Your task to perform on an android device: Open wifi settings Image 0: 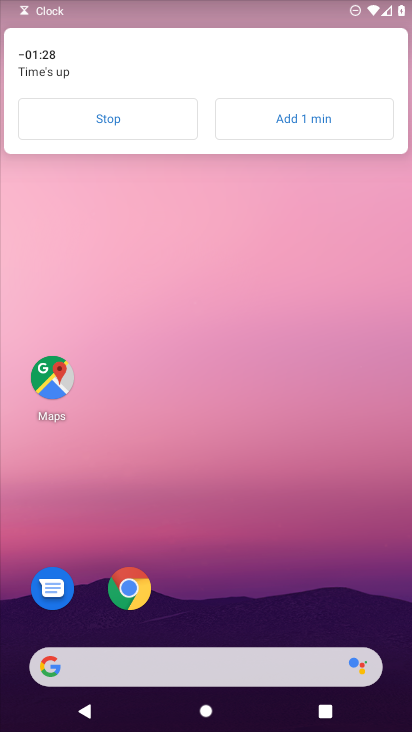
Step 0: drag from (258, 430) to (290, 215)
Your task to perform on an android device: Open wifi settings Image 1: 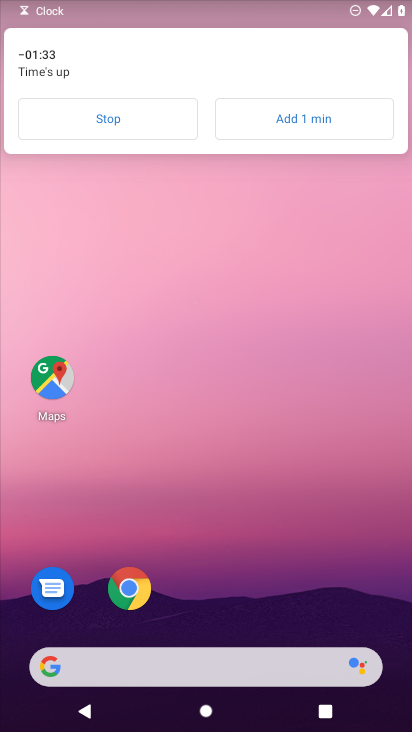
Step 1: drag from (226, 654) to (298, 1)
Your task to perform on an android device: Open wifi settings Image 2: 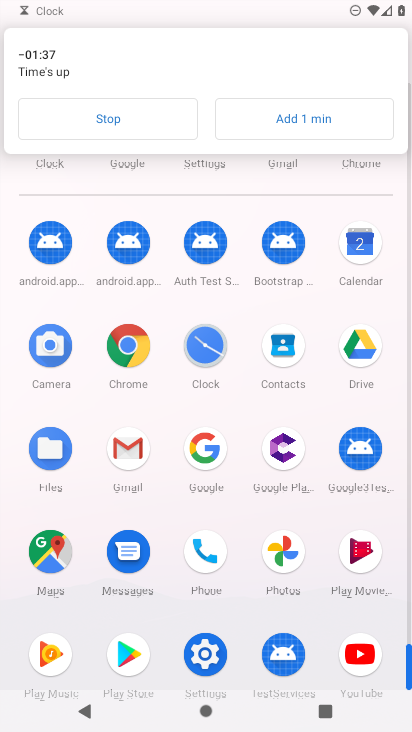
Step 2: click (193, 666)
Your task to perform on an android device: Open wifi settings Image 3: 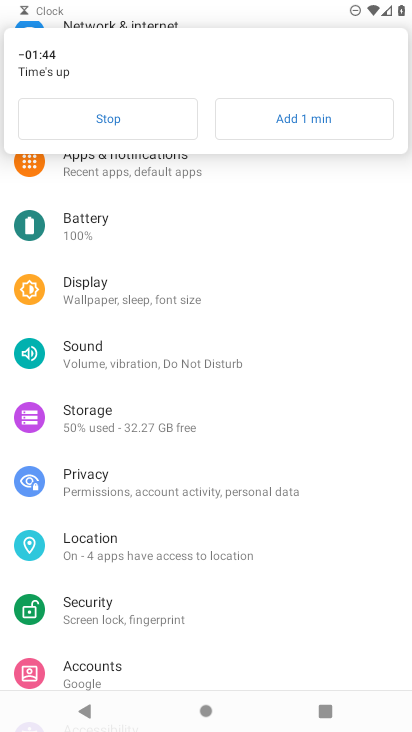
Step 3: drag from (179, 275) to (157, 625)
Your task to perform on an android device: Open wifi settings Image 4: 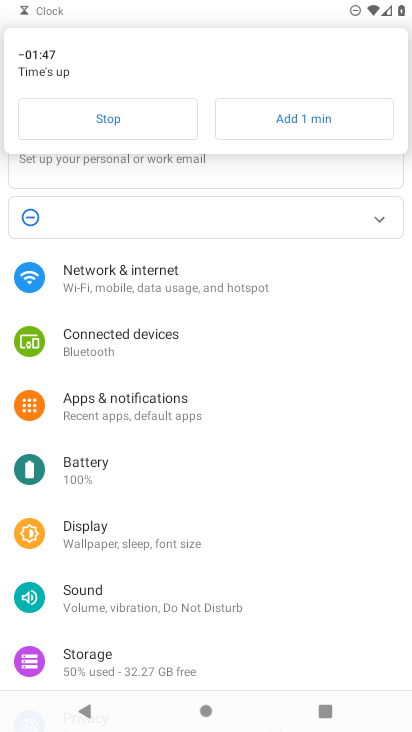
Step 4: click (188, 277)
Your task to perform on an android device: Open wifi settings Image 5: 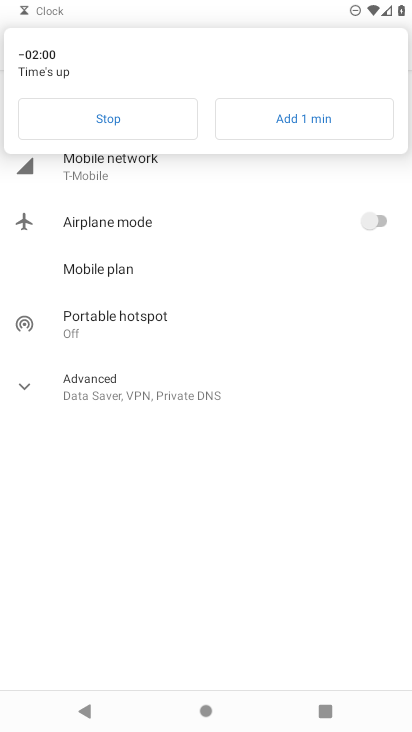
Step 5: click (131, 126)
Your task to perform on an android device: Open wifi settings Image 6: 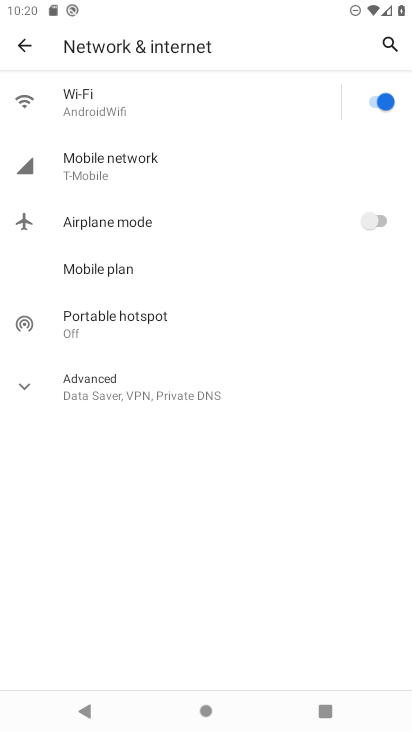
Step 6: click (178, 94)
Your task to perform on an android device: Open wifi settings Image 7: 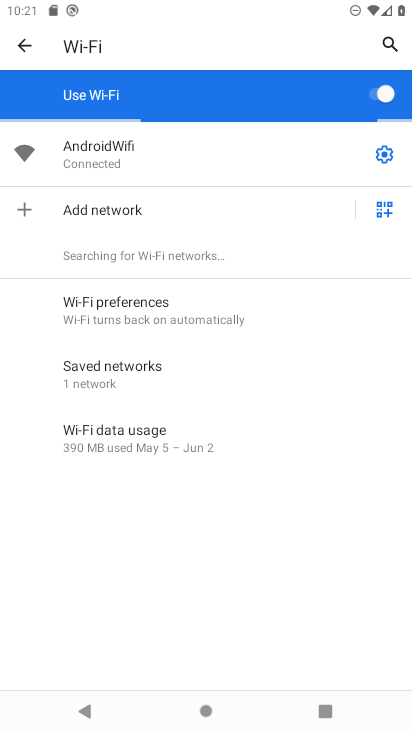
Step 7: task complete